Your task to perform on an android device: change the clock display to analog Image 0: 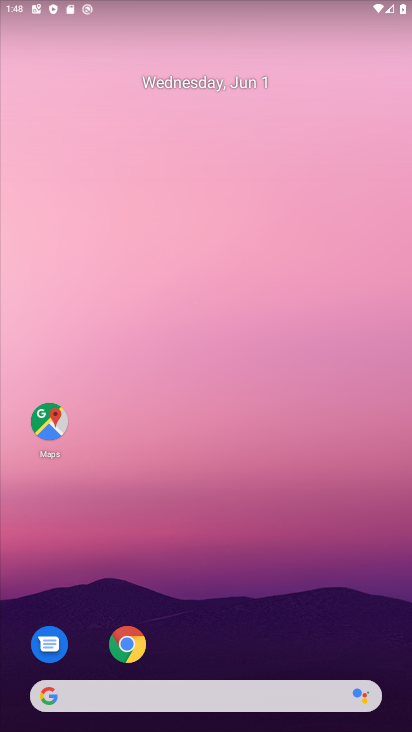
Step 0: drag from (192, 638) to (296, 113)
Your task to perform on an android device: change the clock display to analog Image 1: 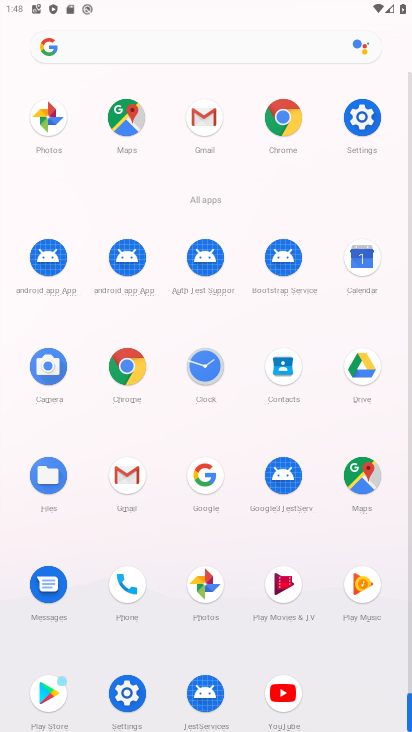
Step 1: click (204, 362)
Your task to perform on an android device: change the clock display to analog Image 2: 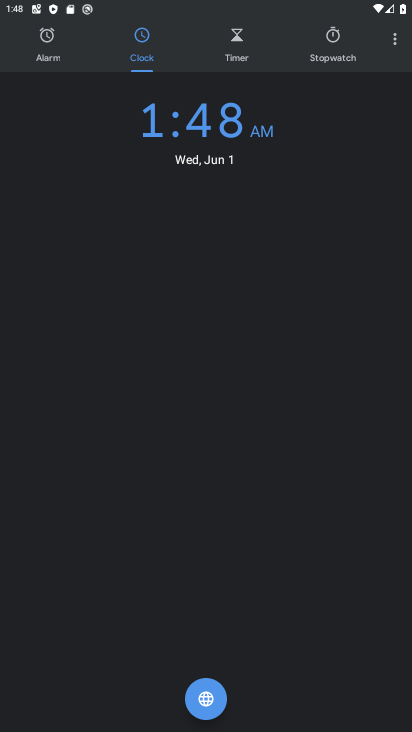
Step 2: click (397, 40)
Your task to perform on an android device: change the clock display to analog Image 3: 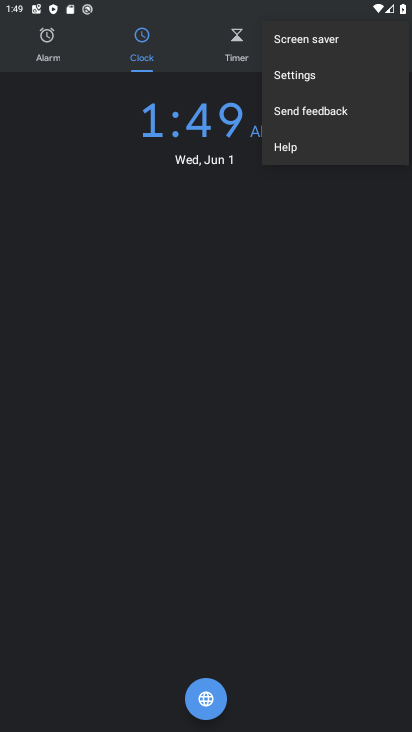
Step 3: click (322, 81)
Your task to perform on an android device: change the clock display to analog Image 4: 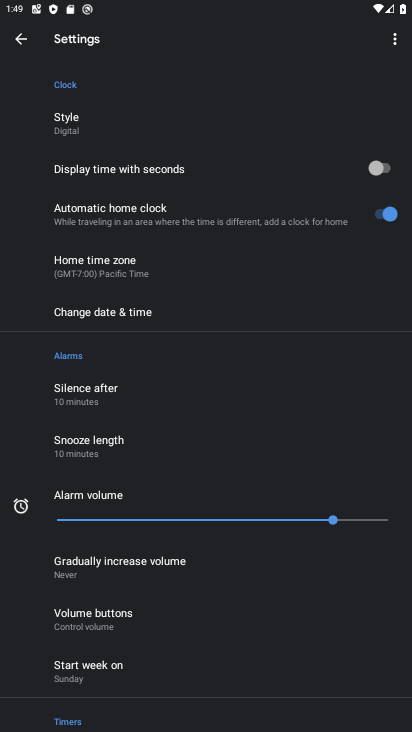
Step 4: click (83, 117)
Your task to perform on an android device: change the clock display to analog Image 5: 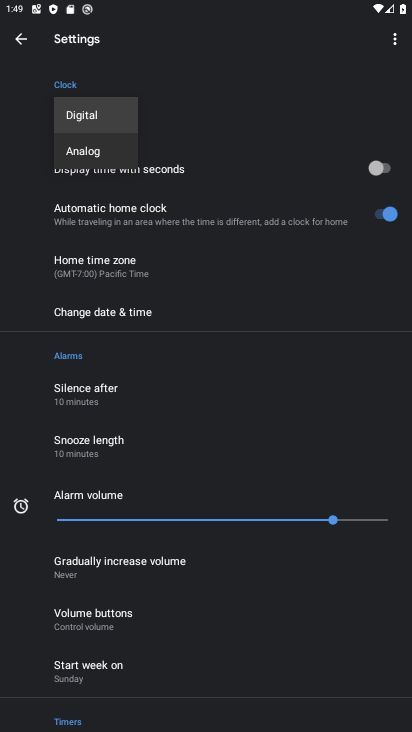
Step 5: click (117, 161)
Your task to perform on an android device: change the clock display to analog Image 6: 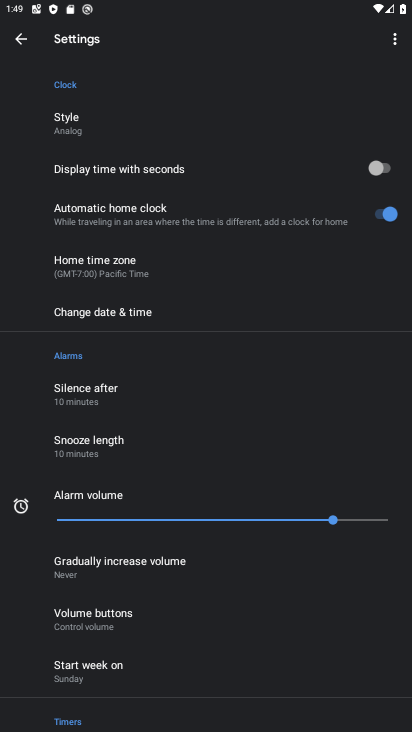
Step 6: task complete